Your task to perform on an android device: Is it going to rain this weekend? Image 0: 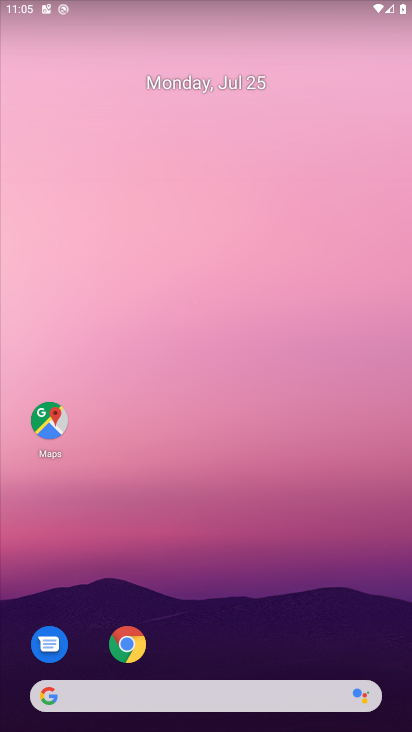
Step 0: press home button
Your task to perform on an android device: Is it going to rain this weekend? Image 1: 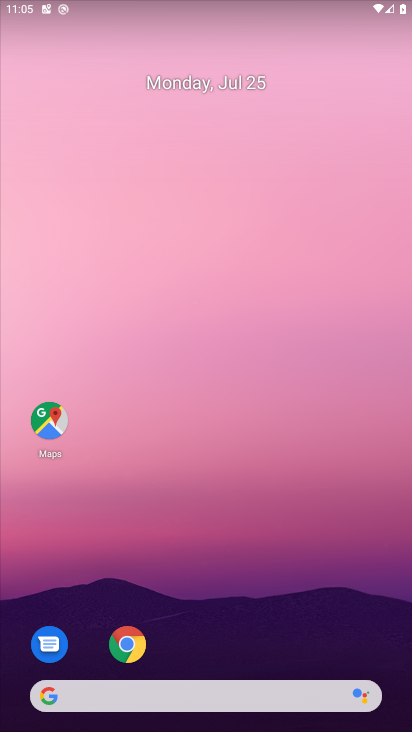
Step 1: click (130, 651)
Your task to perform on an android device: Is it going to rain this weekend? Image 2: 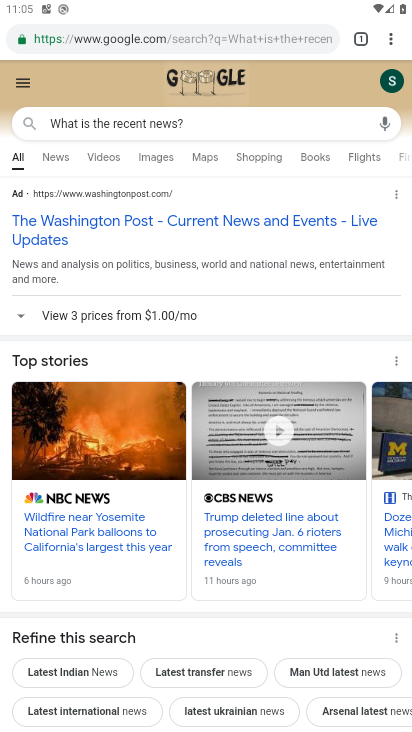
Step 2: click (150, 31)
Your task to perform on an android device: Is it going to rain this weekend? Image 3: 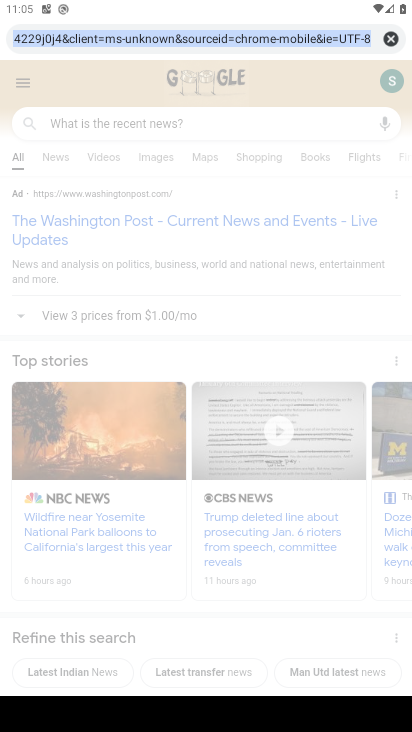
Step 3: type "Is it going to rain this weekend?"
Your task to perform on an android device: Is it going to rain this weekend? Image 4: 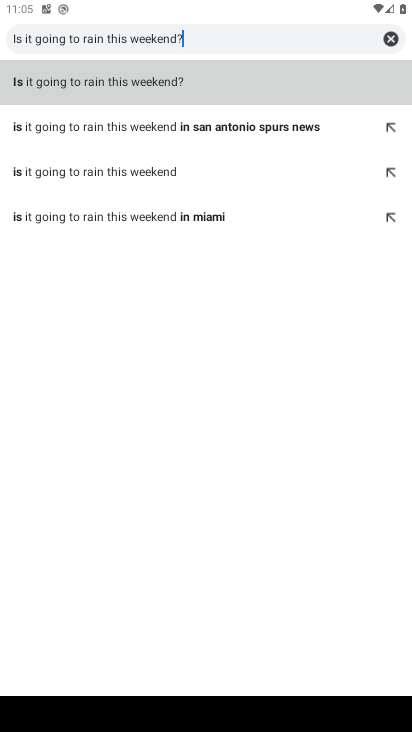
Step 4: type ""
Your task to perform on an android device: Is it going to rain this weekend? Image 5: 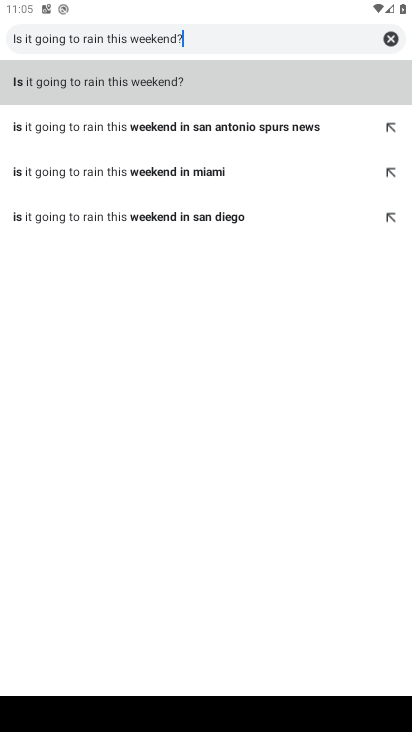
Step 5: click (40, 86)
Your task to perform on an android device: Is it going to rain this weekend? Image 6: 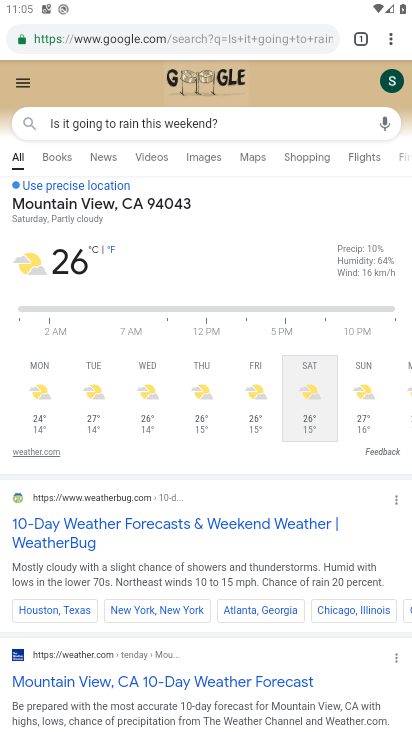
Step 6: task complete